Your task to perform on an android device: toggle location history Image 0: 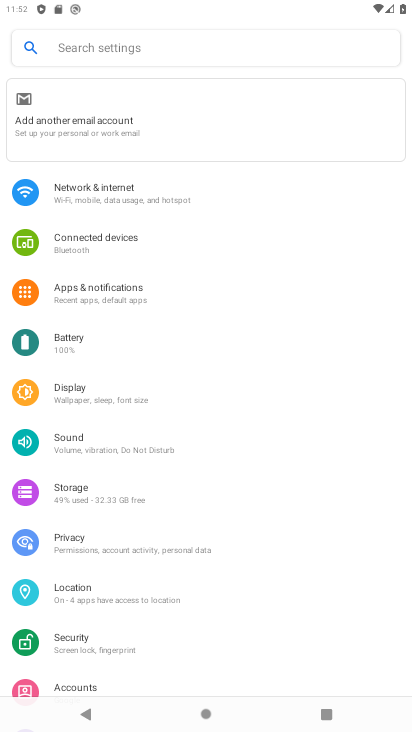
Step 0: click (75, 587)
Your task to perform on an android device: toggle location history Image 1: 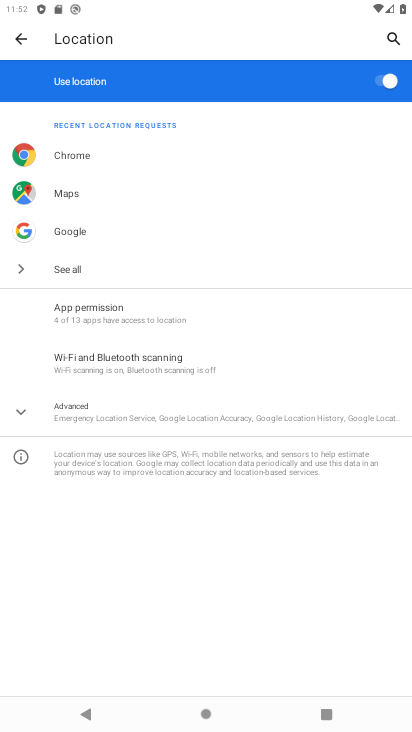
Step 1: click (25, 410)
Your task to perform on an android device: toggle location history Image 2: 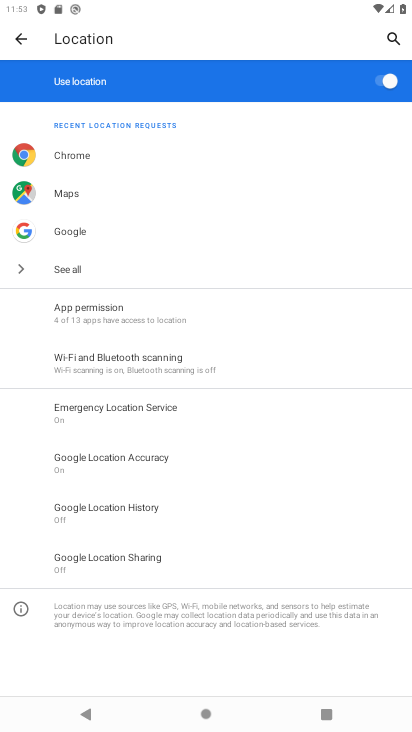
Step 2: click (116, 504)
Your task to perform on an android device: toggle location history Image 3: 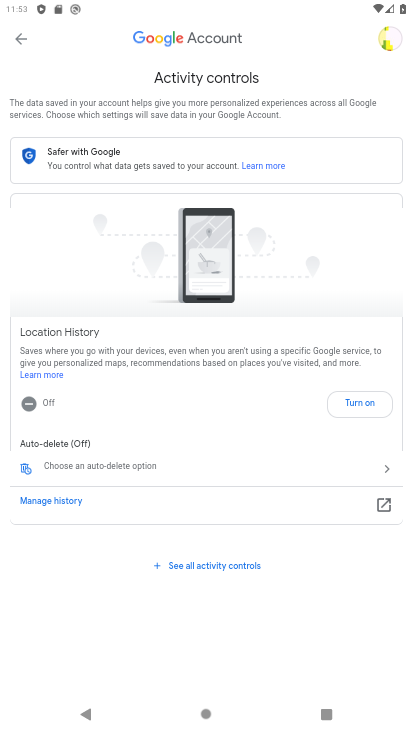
Step 3: click (368, 407)
Your task to perform on an android device: toggle location history Image 4: 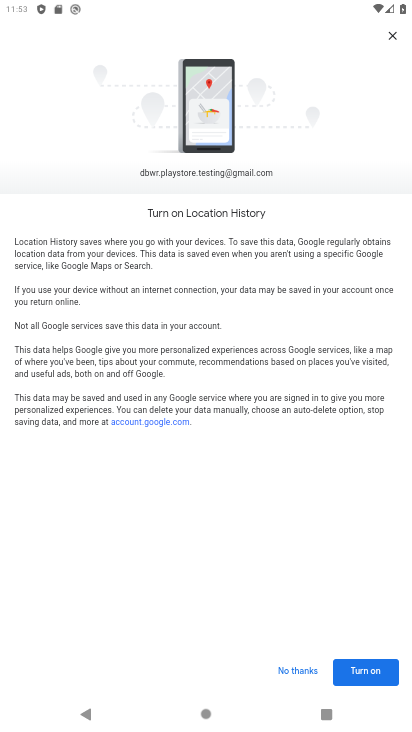
Step 4: task complete